Your task to perform on an android device: set default search engine in the chrome app Image 0: 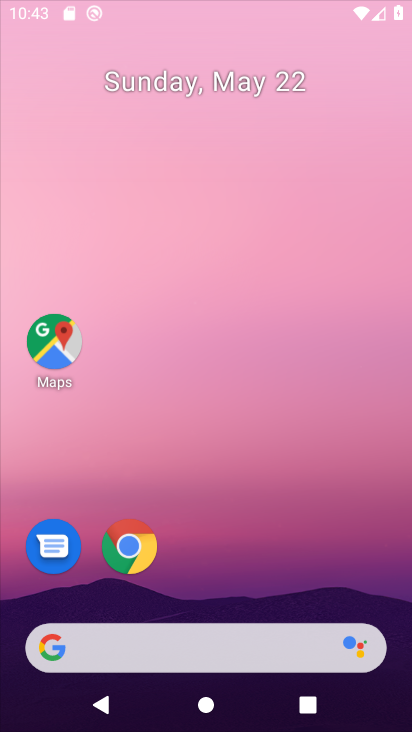
Step 0: click (317, 85)
Your task to perform on an android device: set default search engine in the chrome app Image 1: 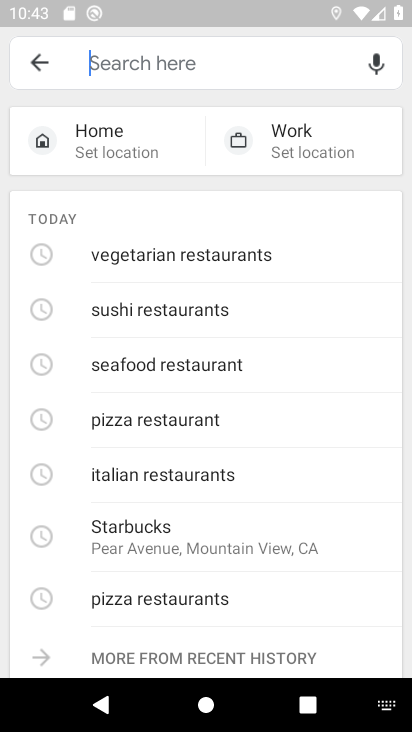
Step 1: press home button
Your task to perform on an android device: set default search engine in the chrome app Image 2: 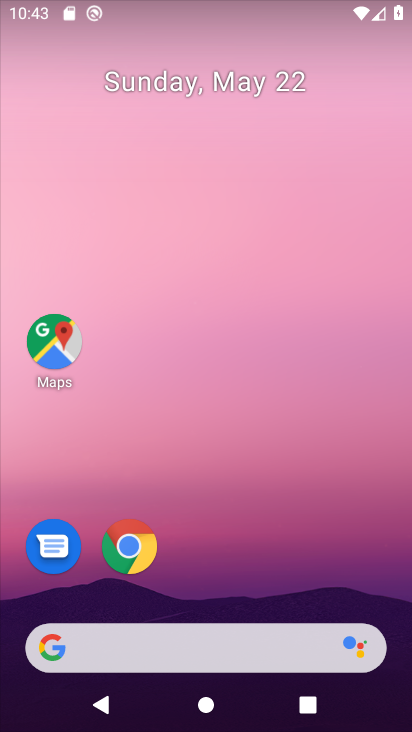
Step 2: drag from (191, 591) to (269, 0)
Your task to perform on an android device: set default search engine in the chrome app Image 3: 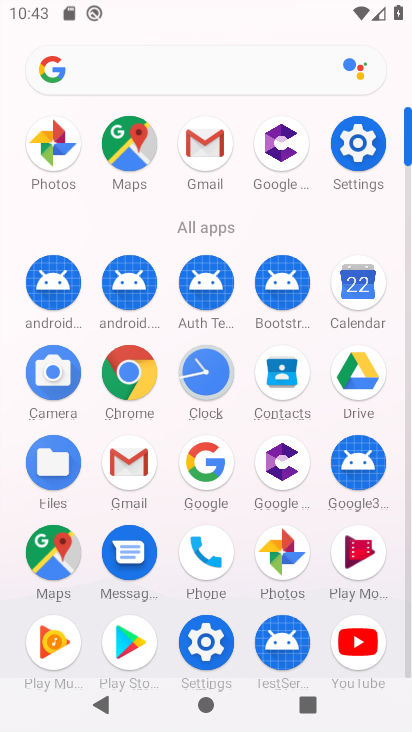
Step 3: drag from (262, 541) to (300, 62)
Your task to perform on an android device: set default search engine in the chrome app Image 4: 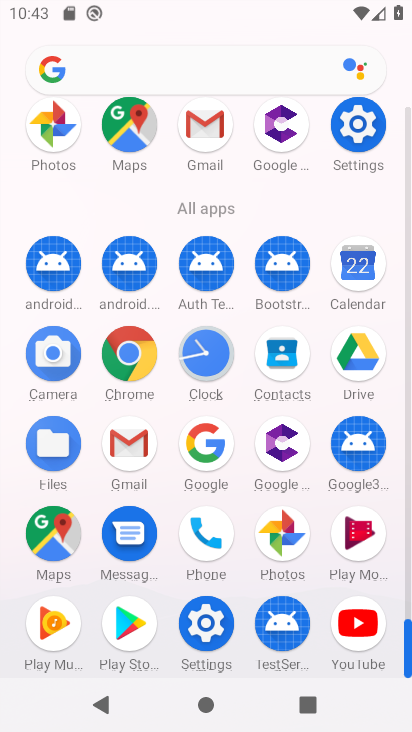
Step 4: click (151, 366)
Your task to perform on an android device: set default search engine in the chrome app Image 5: 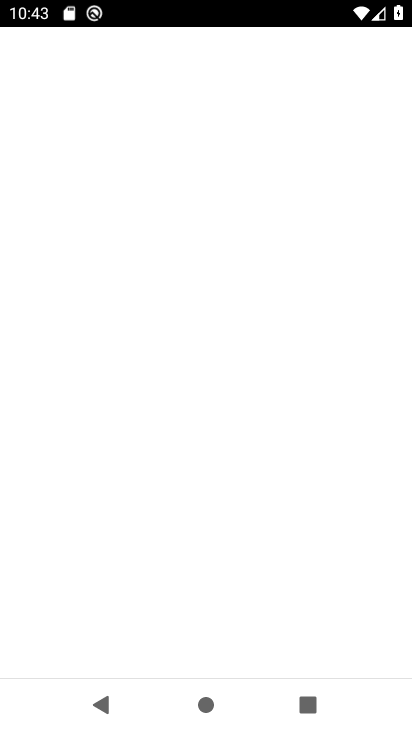
Step 5: click (131, 370)
Your task to perform on an android device: set default search engine in the chrome app Image 6: 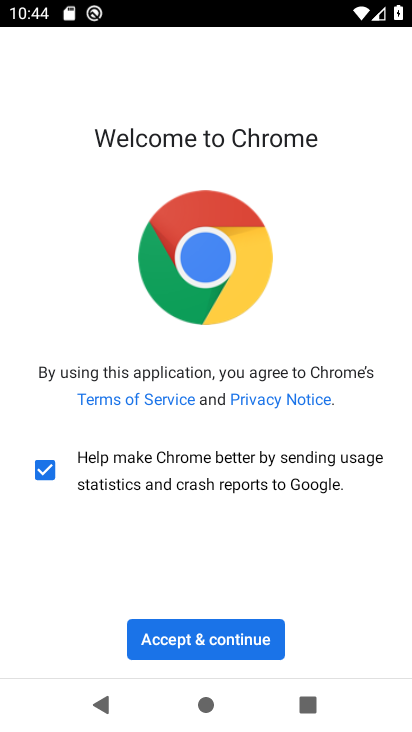
Step 6: click (241, 640)
Your task to perform on an android device: set default search engine in the chrome app Image 7: 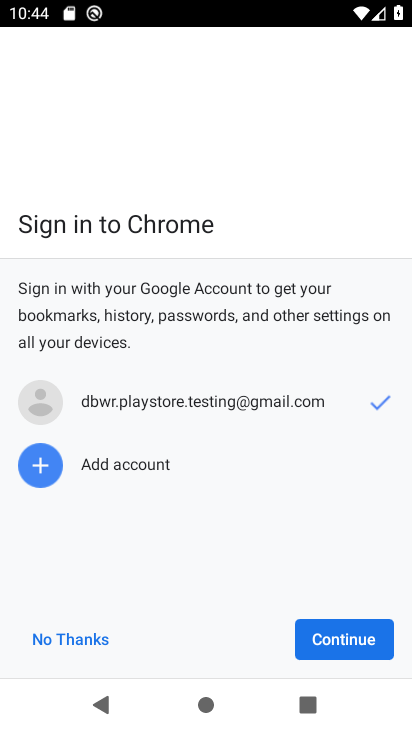
Step 7: click (361, 643)
Your task to perform on an android device: set default search engine in the chrome app Image 8: 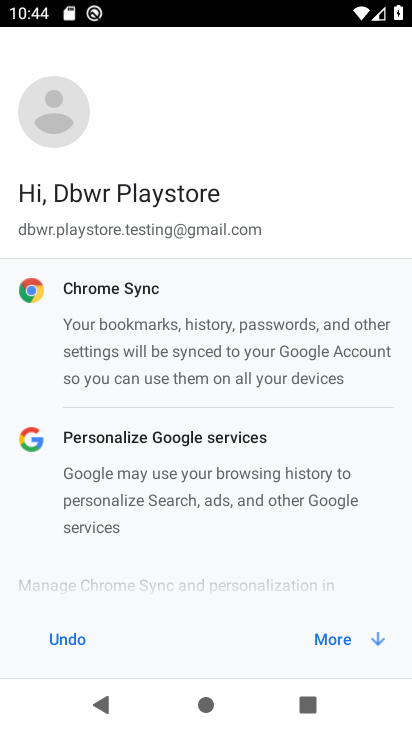
Step 8: click (349, 632)
Your task to perform on an android device: set default search engine in the chrome app Image 9: 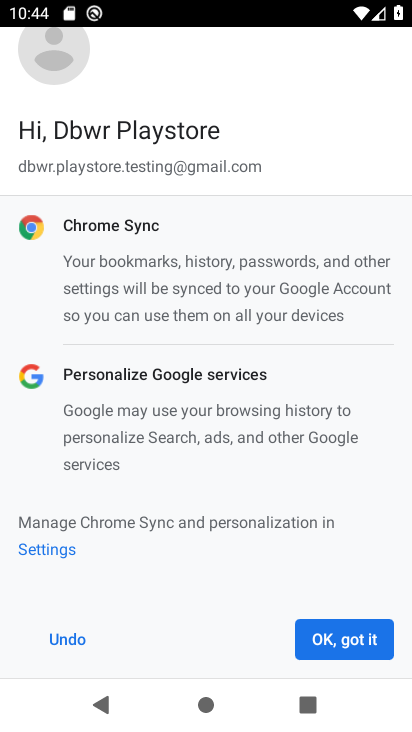
Step 9: click (360, 635)
Your task to perform on an android device: set default search engine in the chrome app Image 10: 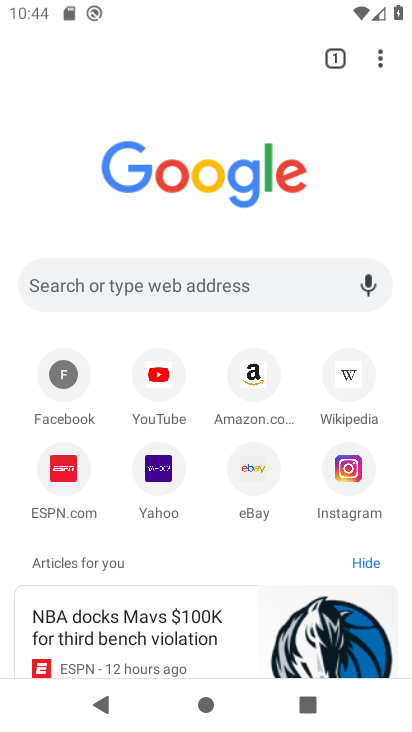
Step 10: click (377, 66)
Your task to perform on an android device: set default search engine in the chrome app Image 11: 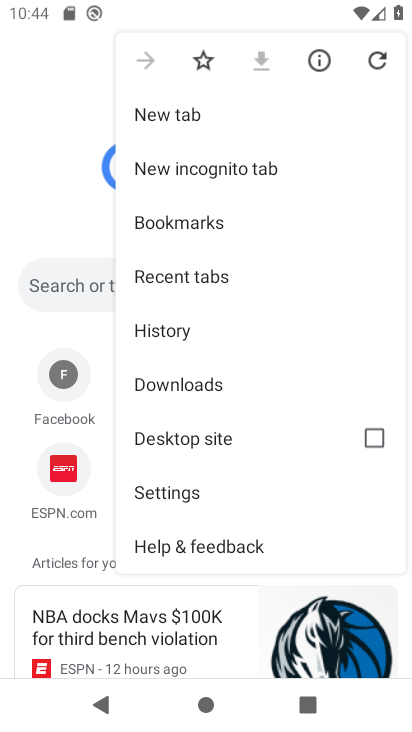
Step 11: click (181, 487)
Your task to perform on an android device: set default search engine in the chrome app Image 12: 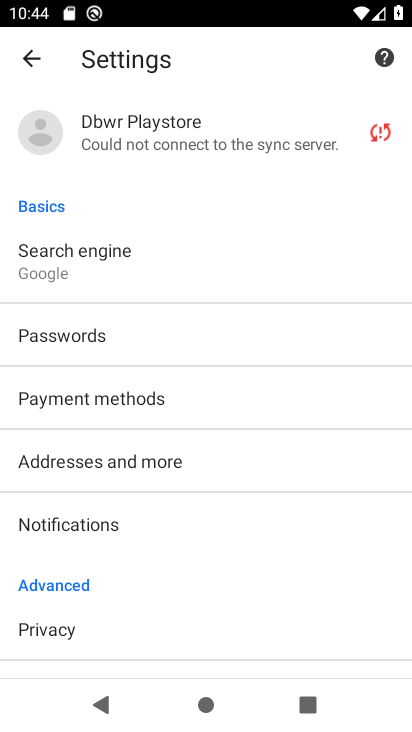
Step 12: click (108, 261)
Your task to perform on an android device: set default search engine in the chrome app Image 13: 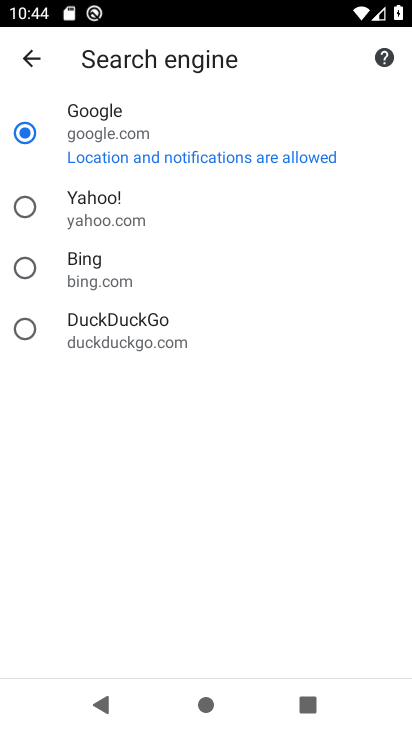
Step 13: task complete